Your task to perform on an android device: Open the calendar app, open the side menu, and click the "Day" option Image 0: 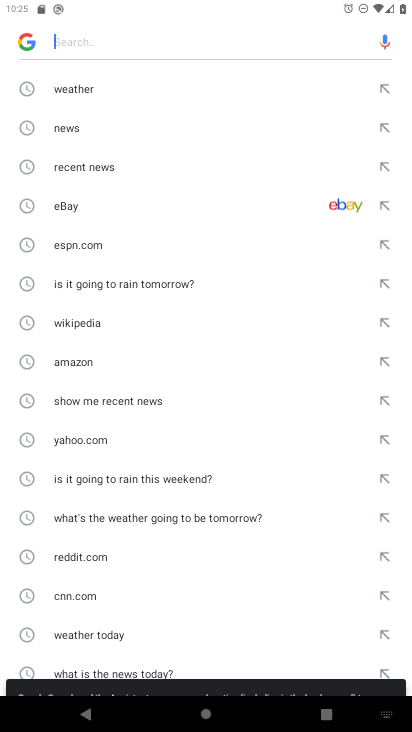
Step 0: press home button
Your task to perform on an android device: Open the calendar app, open the side menu, and click the "Day" option Image 1: 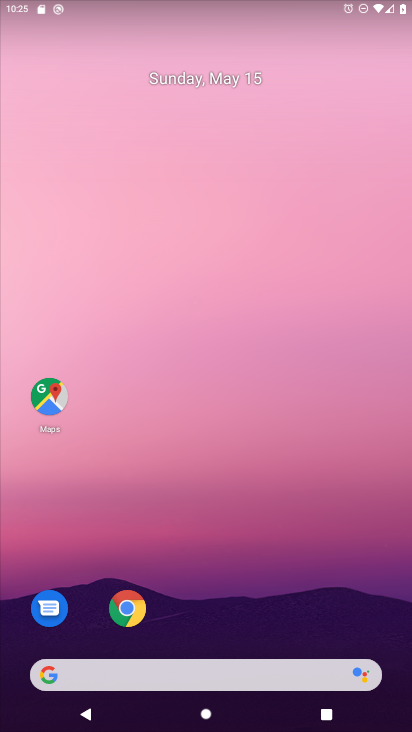
Step 1: drag from (372, 606) to (321, 159)
Your task to perform on an android device: Open the calendar app, open the side menu, and click the "Day" option Image 2: 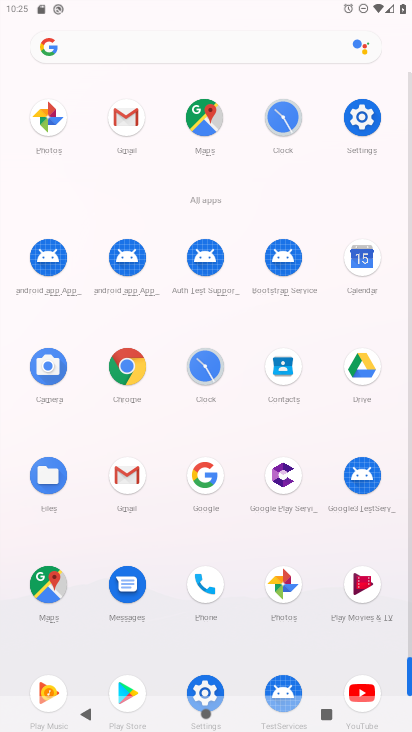
Step 2: click (368, 274)
Your task to perform on an android device: Open the calendar app, open the side menu, and click the "Day" option Image 3: 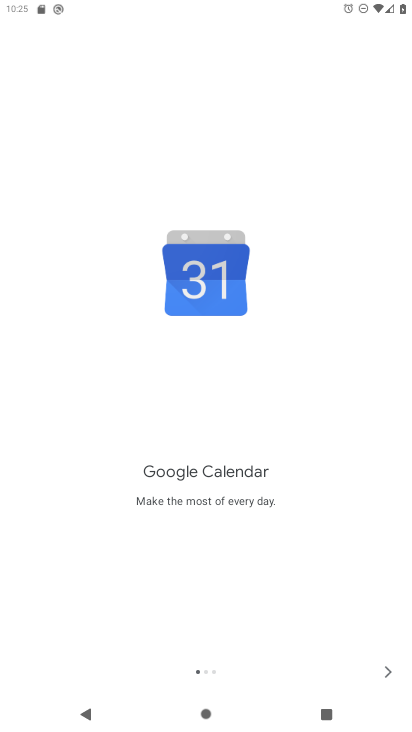
Step 3: drag from (329, 366) to (44, 361)
Your task to perform on an android device: Open the calendar app, open the side menu, and click the "Day" option Image 4: 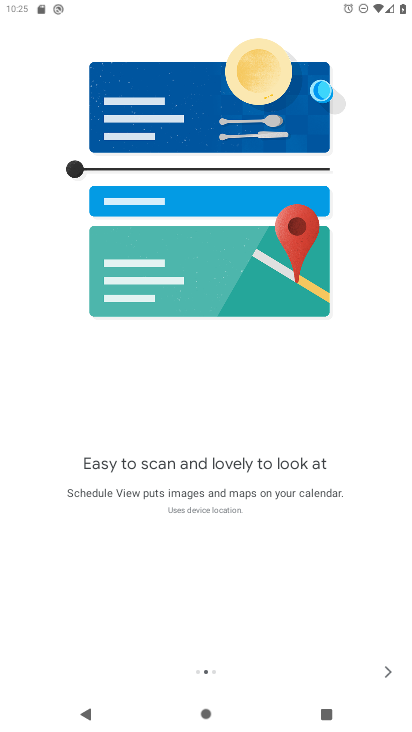
Step 4: drag from (277, 362) to (5, 360)
Your task to perform on an android device: Open the calendar app, open the side menu, and click the "Day" option Image 5: 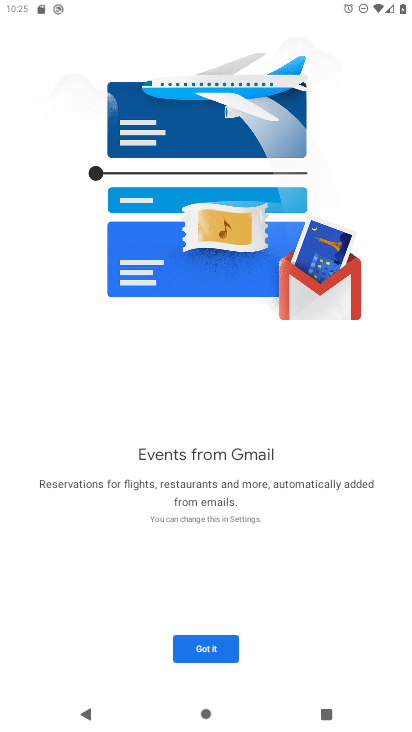
Step 5: click (222, 649)
Your task to perform on an android device: Open the calendar app, open the side menu, and click the "Day" option Image 6: 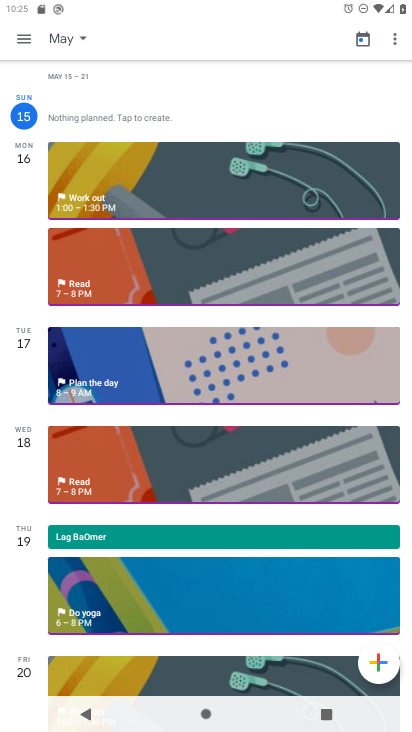
Step 6: click (30, 47)
Your task to perform on an android device: Open the calendar app, open the side menu, and click the "Day" option Image 7: 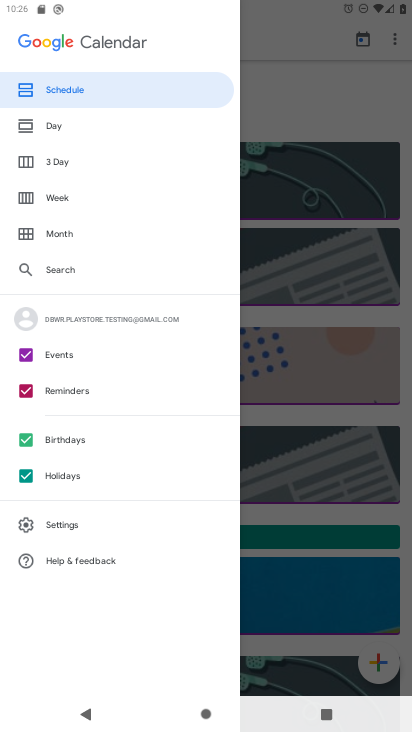
Step 7: click (35, 122)
Your task to perform on an android device: Open the calendar app, open the side menu, and click the "Day" option Image 8: 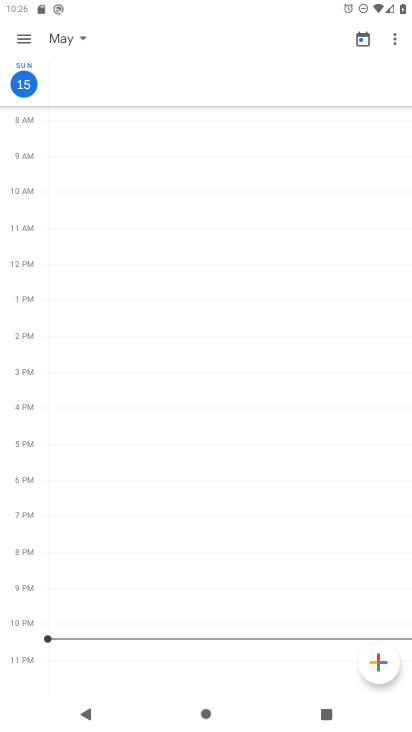
Step 8: task complete